Your task to perform on an android device: Add usb-c to usb-b to the cart on bestbuy.com, then select checkout. Image 0: 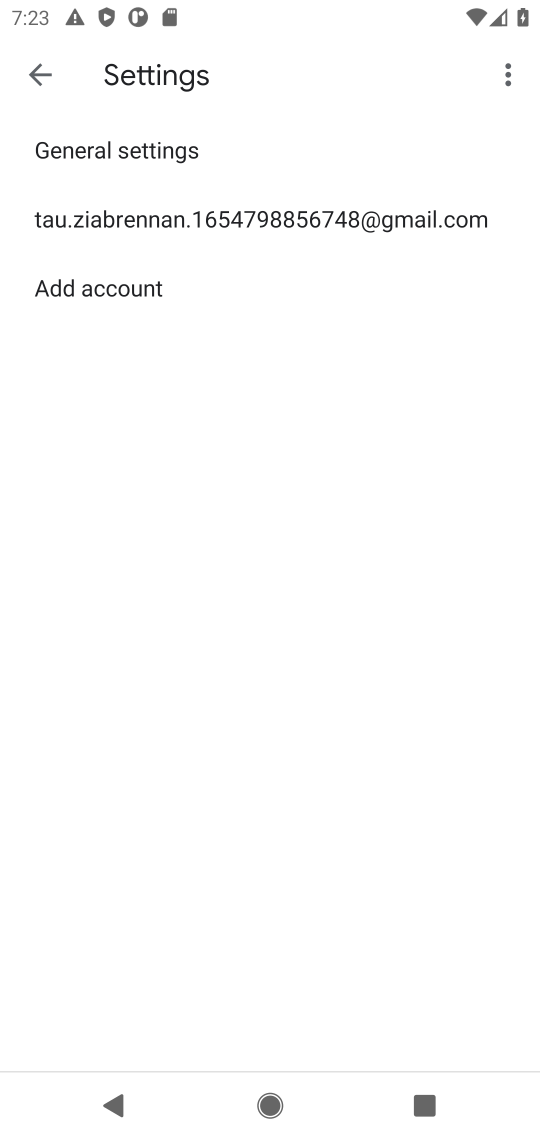
Step 0: press home button
Your task to perform on an android device: Add usb-c to usb-b to the cart on bestbuy.com, then select checkout. Image 1: 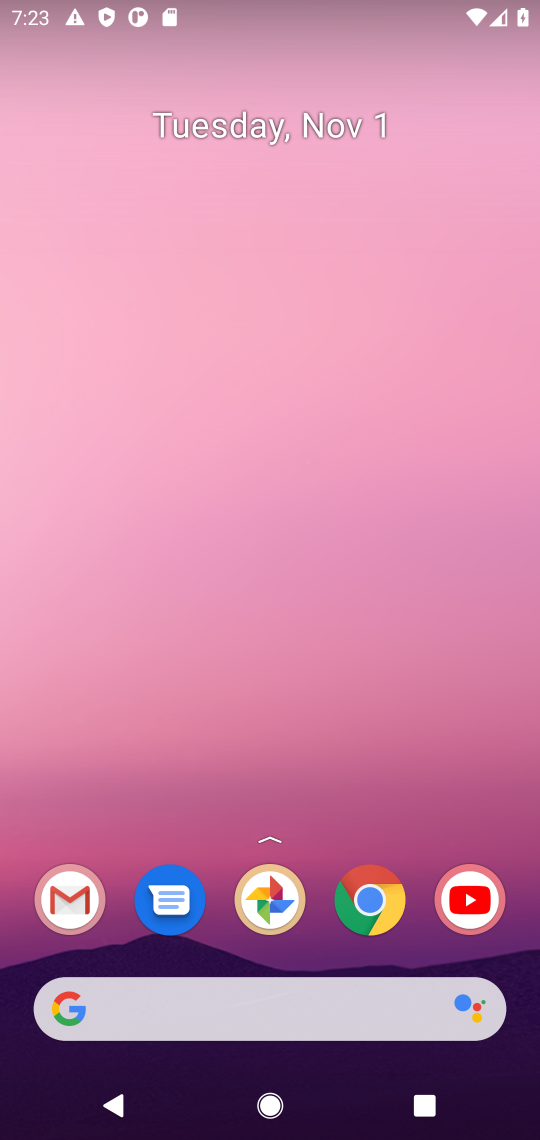
Step 1: drag from (319, 970) to (266, 100)
Your task to perform on an android device: Add usb-c to usb-b to the cart on bestbuy.com, then select checkout. Image 2: 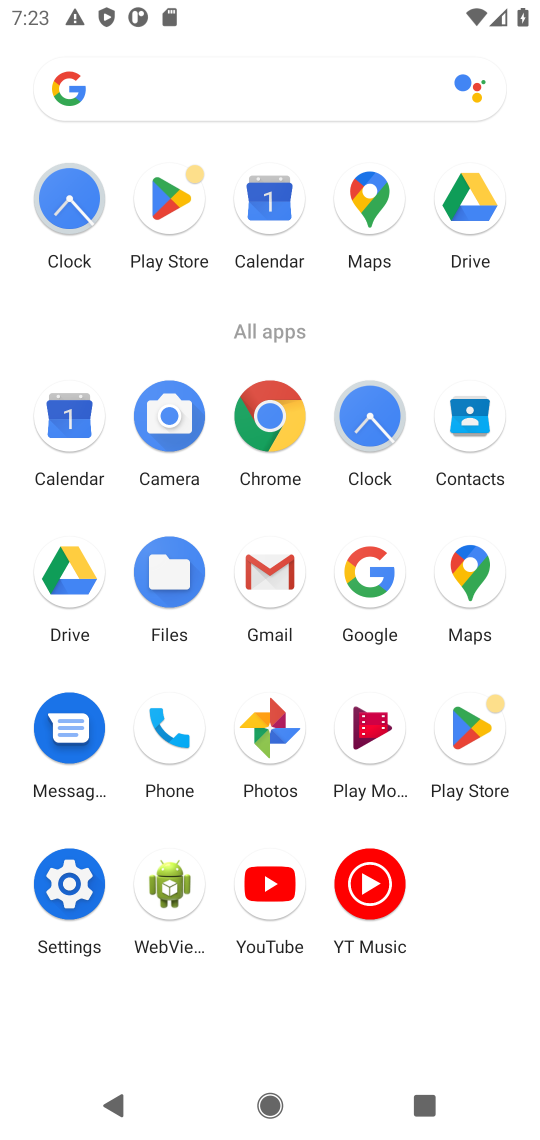
Step 2: click (270, 411)
Your task to perform on an android device: Add usb-c to usb-b to the cart on bestbuy.com, then select checkout. Image 3: 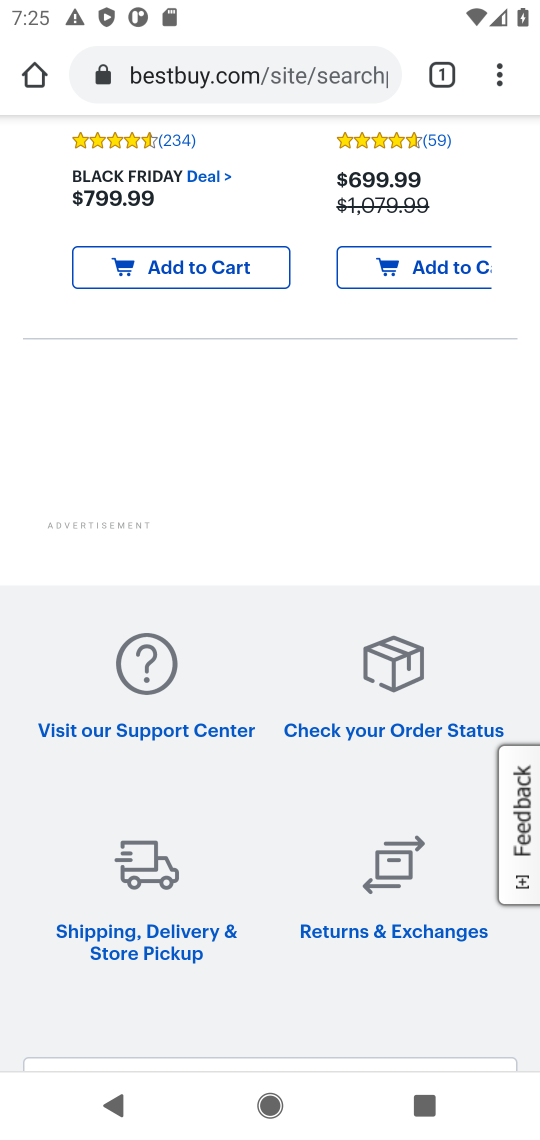
Step 3: drag from (320, 380) to (411, 910)
Your task to perform on an android device: Add usb-c to usb-b to the cart on bestbuy.com, then select checkout. Image 4: 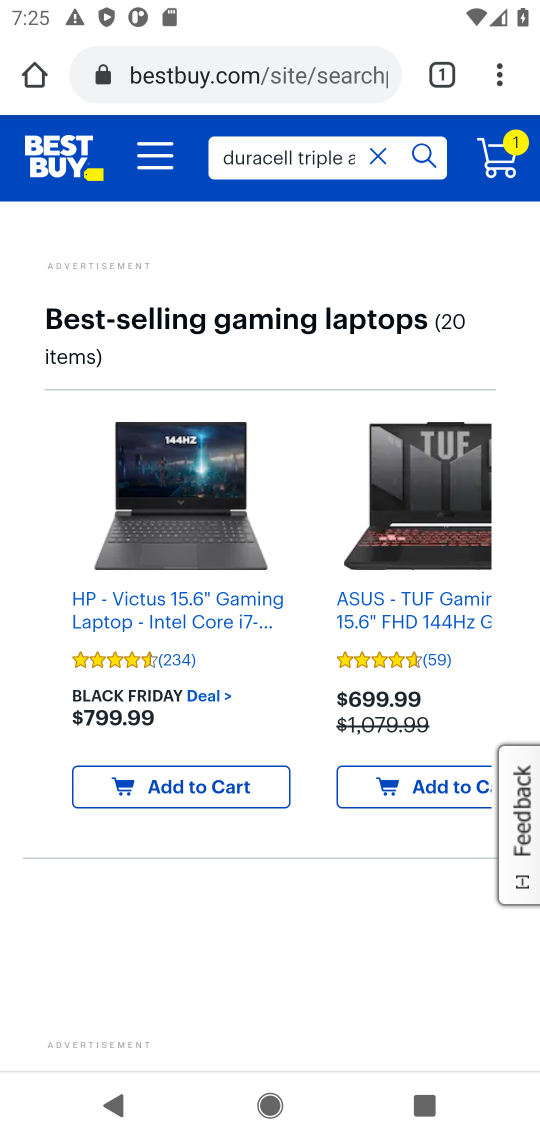
Step 4: click (318, 166)
Your task to perform on an android device: Add usb-c to usb-b to the cart on bestbuy.com, then select checkout. Image 5: 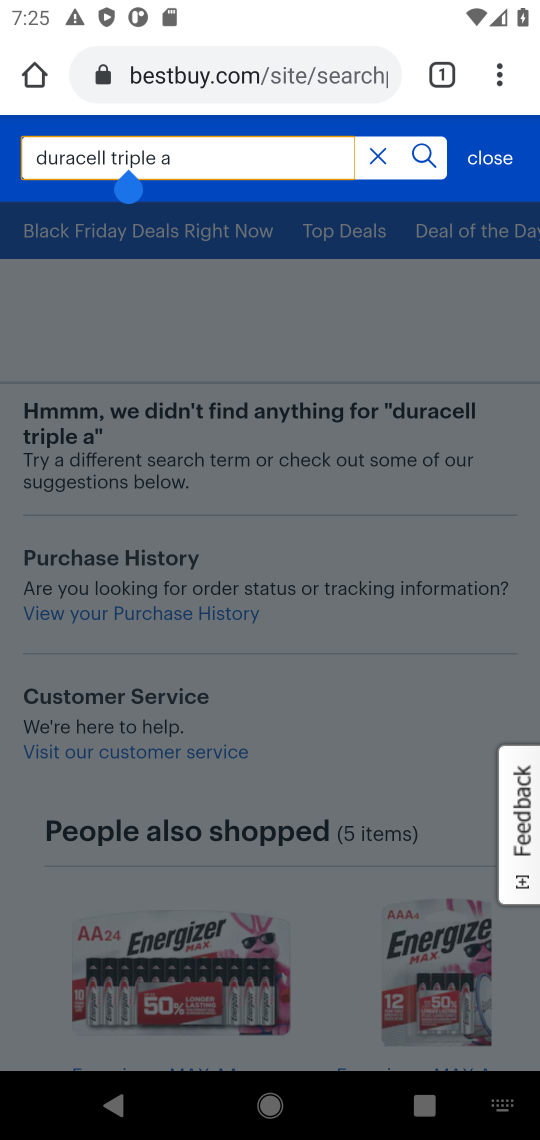
Step 5: click (370, 157)
Your task to perform on an android device: Add usb-c to usb-b to the cart on bestbuy.com, then select checkout. Image 6: 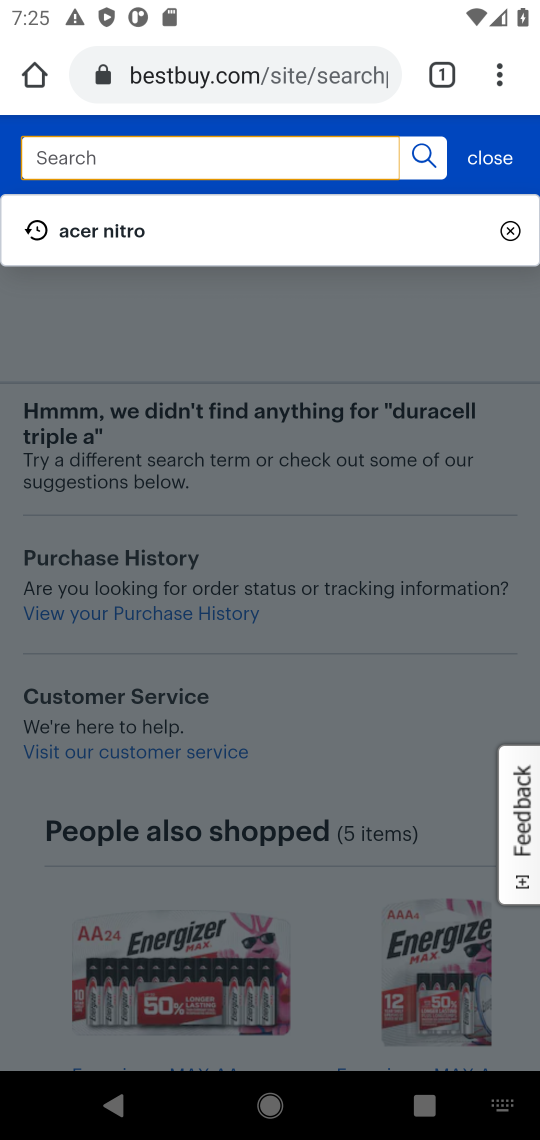
Step 6: type "usb-c to usb-b"
Your task to perform on an android device: Add usb-c to usb-b to the cart on bestbuy.com, then select checkout. Image 7: 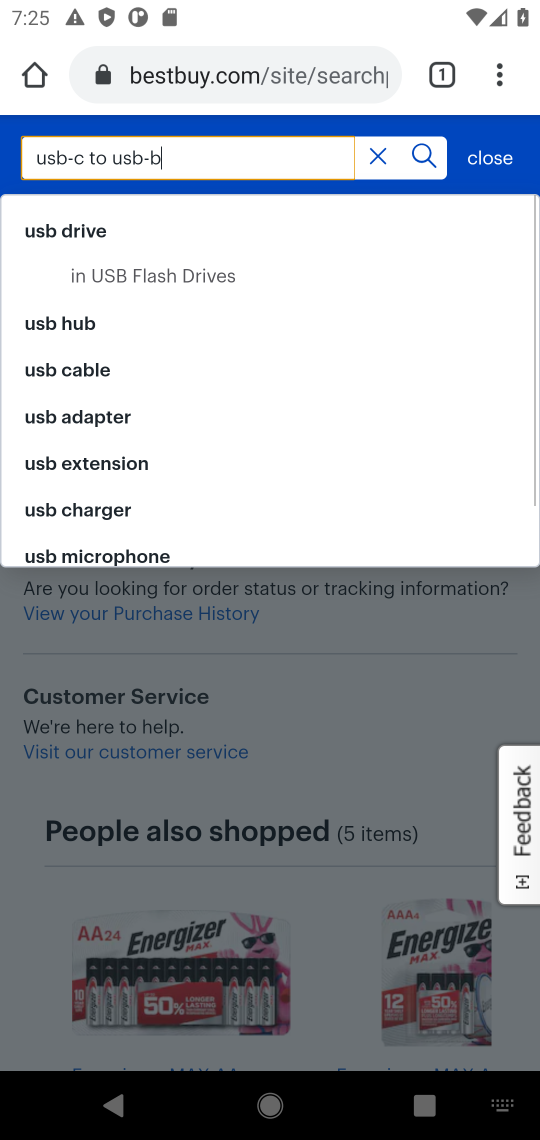
Step 7: press enter
Your task to perform on an android device: Add usb-c to usb-b to the cart on bestbuy.com, then select checkout. Image 8: 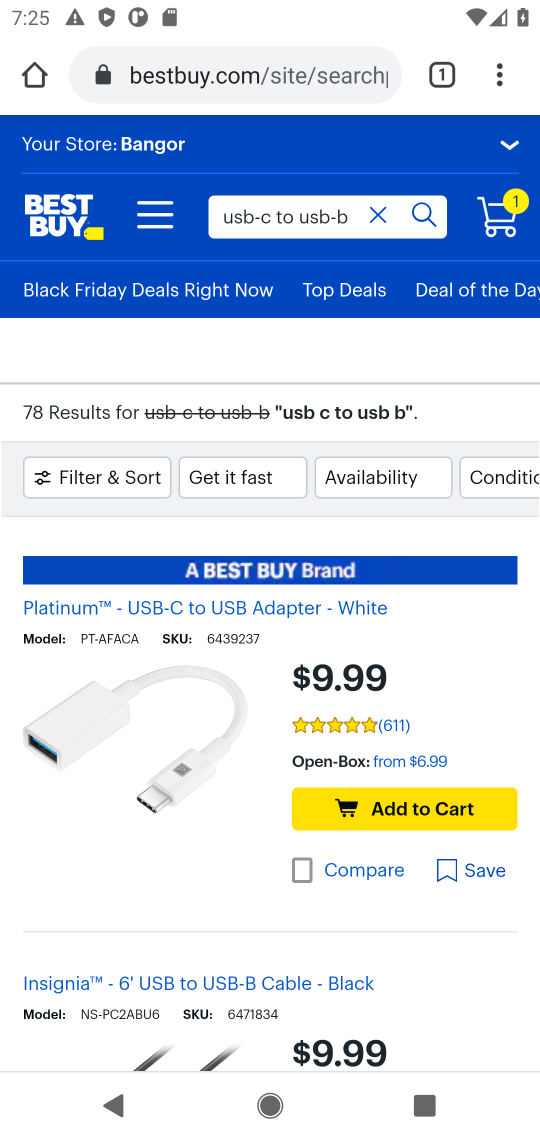
Step 8: task complete